Your task to perform on an android device: toggle show notifications on the lock screen Image 0: 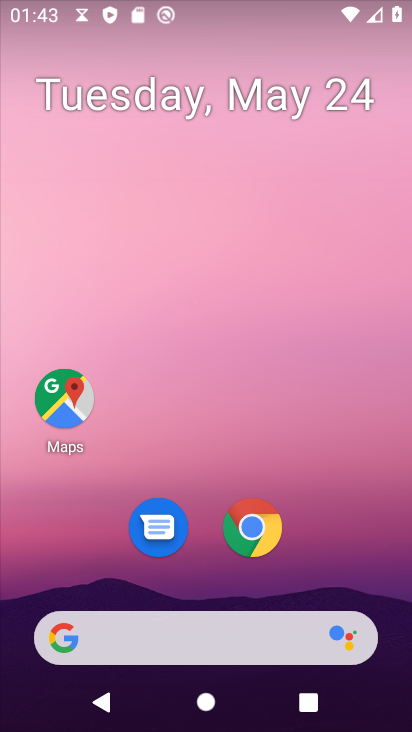
Step 0: press home button
Your task to perform on an android device: toggle show notifications on the lock screen Image 1: 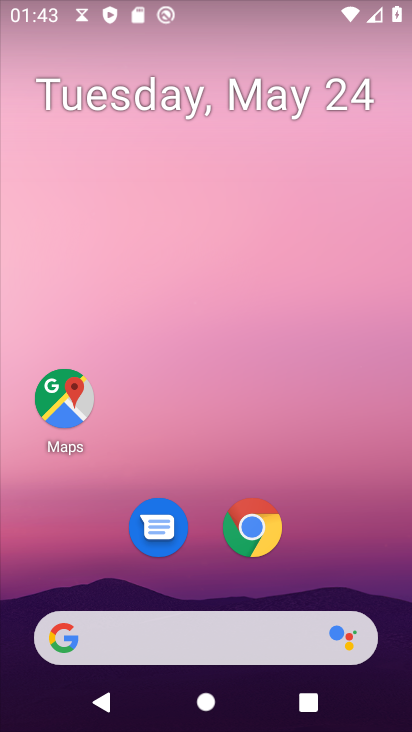
Step 1: drag from (179, 589) to (341, 86)
Your task to perform on an android device: toggle show notifications on the lock screen Image 2: 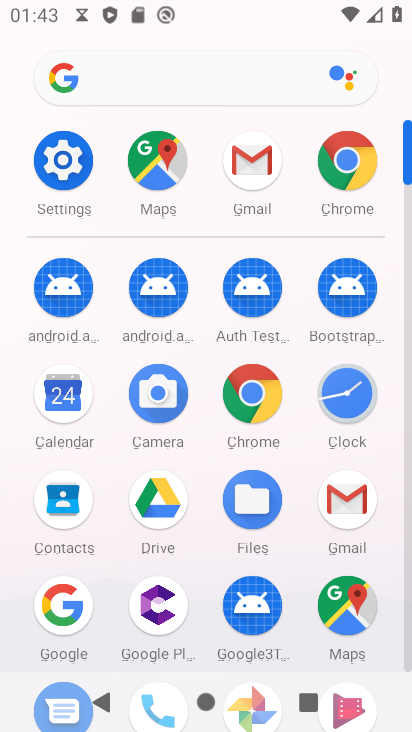
Step 2: click (65, 160)
Your task to perform on an android device: toggle show notifications on the lock screen Image 3: 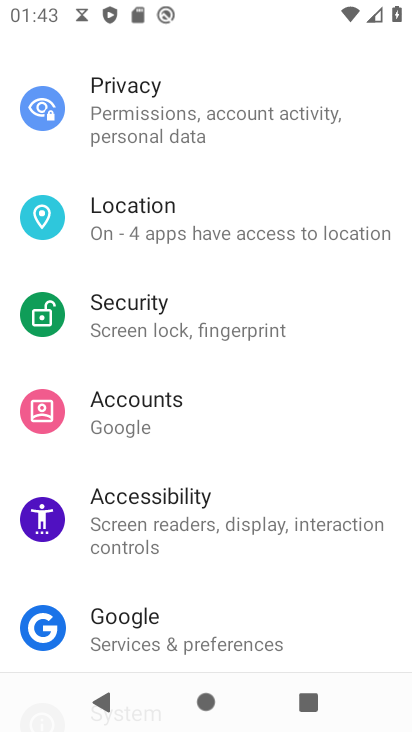
Step 3: drag from (263, 149) to (195, 455)
Your task to perform on an android device: toggle show notifications on the lock screen Image 4: 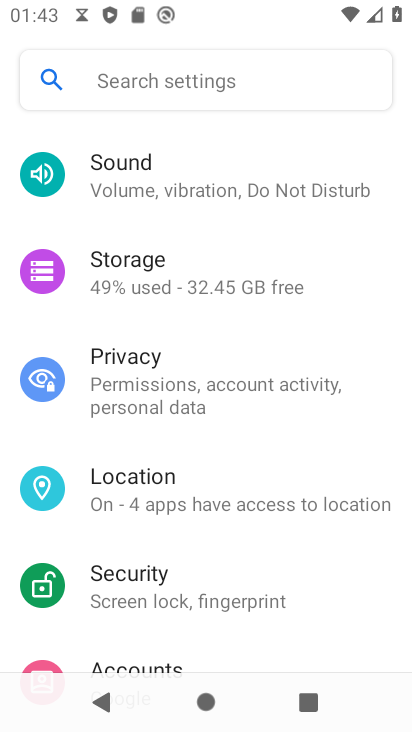
Step 4: drag from (277, 155) to (196, 639)
Your task to perform on an android device: toggle show notifications on the lock screen Image 5: 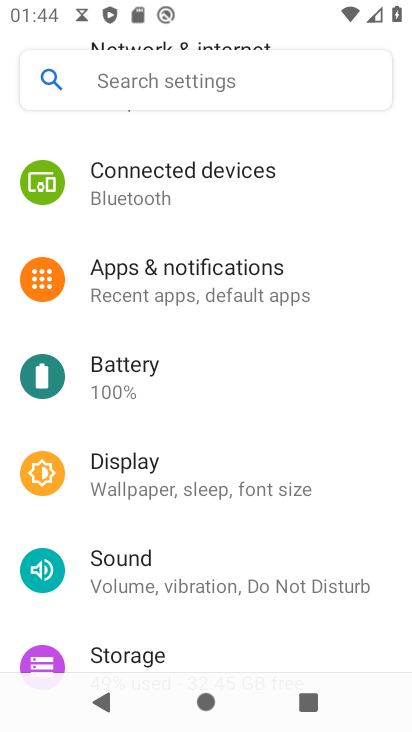
Step 5: click (219, 270)
Your task to perform on an android device: toggle show notifications on the lock screen Image 6: 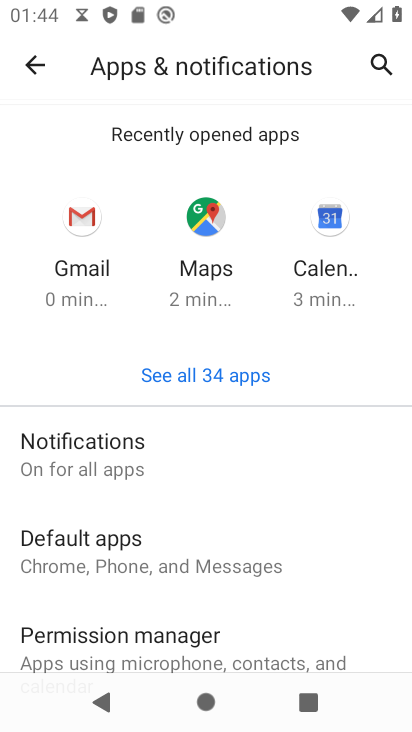
Step 6: click (127, 450)
Your task to perform on an android device: toggle show notifications on the lock screen Image 7: 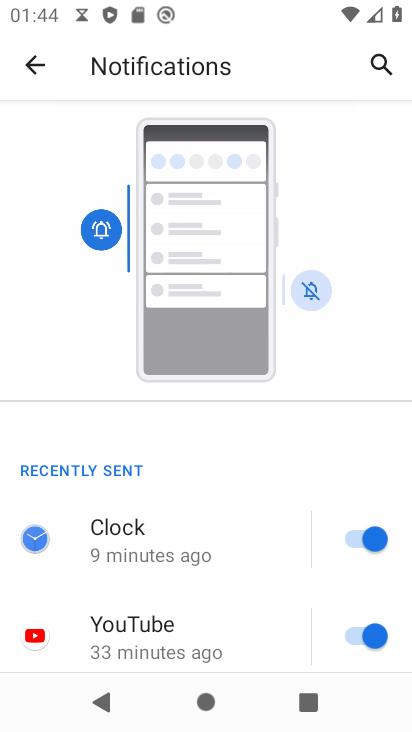
Step 7: drag from (213, 592) to (335, 88)
Your task to perform on an android device: toggle show notifications on the lock screen Image 8: 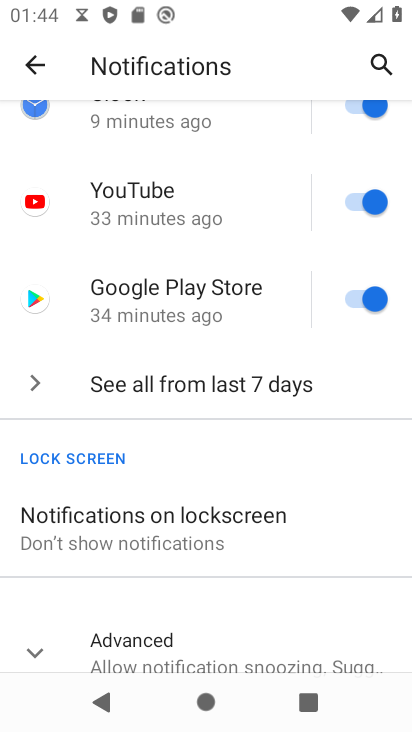
Step 8: click (228, 523)
Your task to perform on an android device: toggle show notifications on the lock screen Image 9: 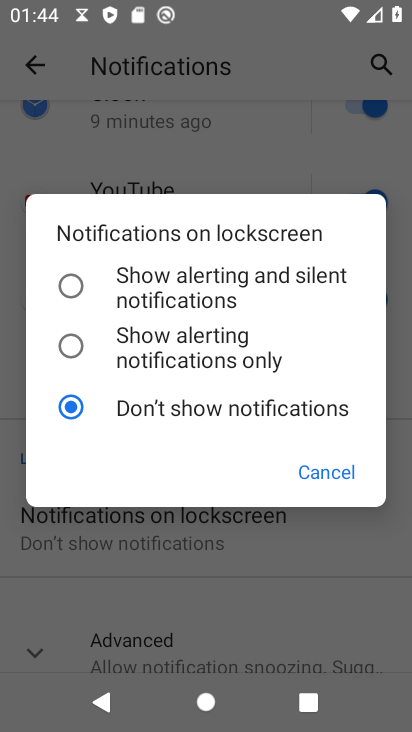
Step 9: click (71, 282)
Your task to perform on an android device: toggle show notifications on the lock screen Image 10: 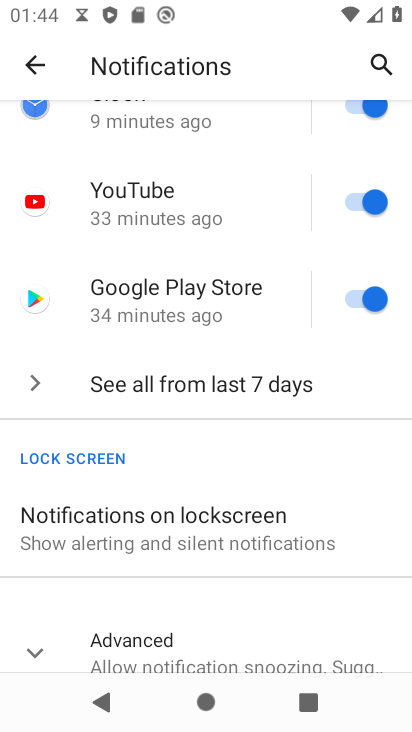
Step 10: task complete